Your task to perform on an android device: open app "Move to iOS" (install if not already installed) and go to login screen Image 0: 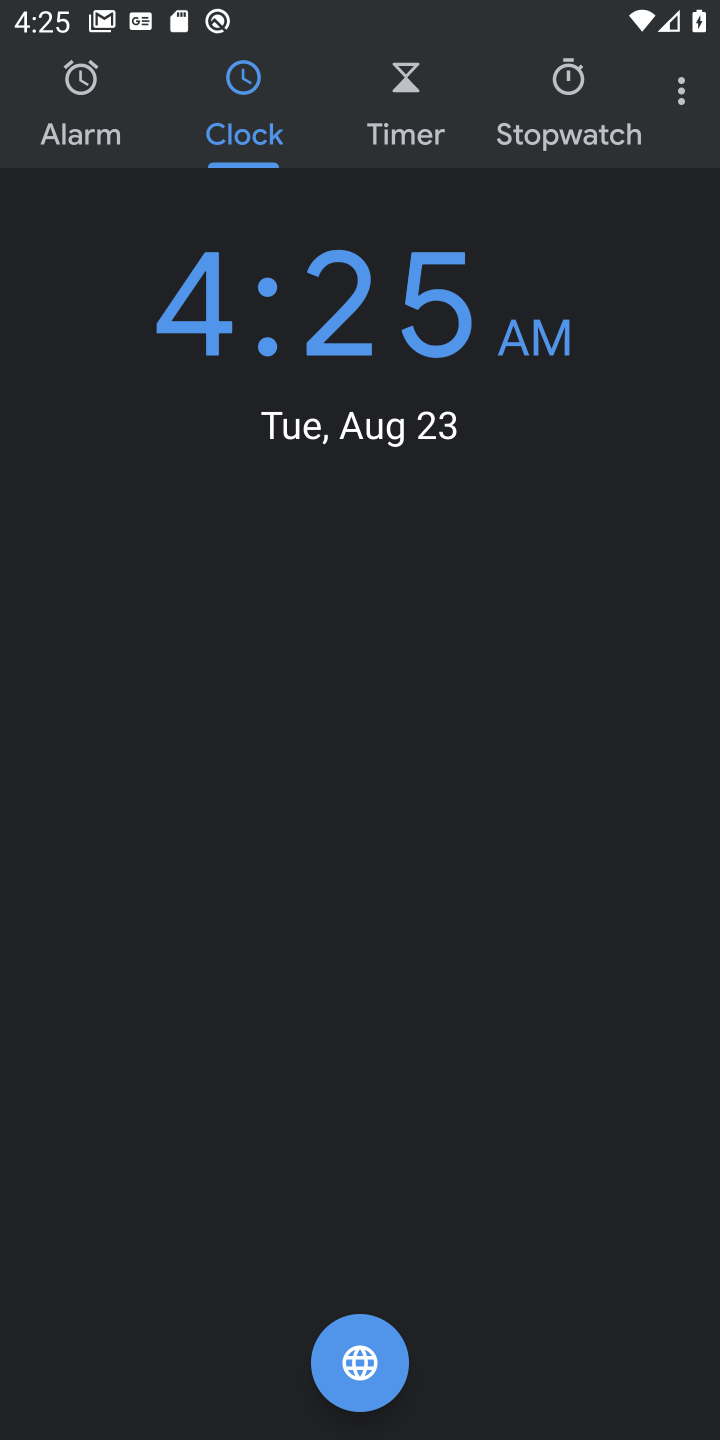
Step 0: press home button
Your task to perform on an android device: open app "Move to iOS" (install if not already installed) and go to login screen Image 1: 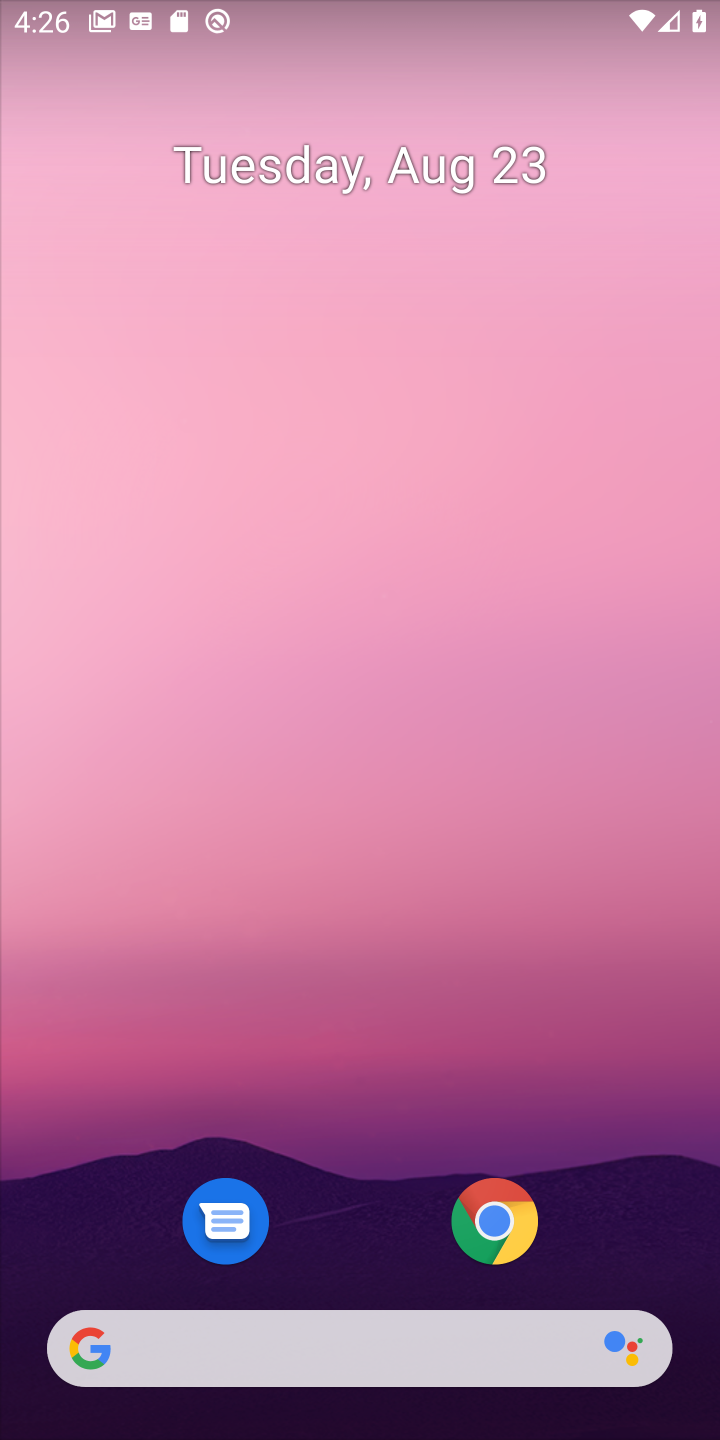
Step 1: drag from (308, 1201) to (312, 34)
Your task to perform on an android device: open app "Move to iOS" (install if not already installed) and go to login screen Image 2: 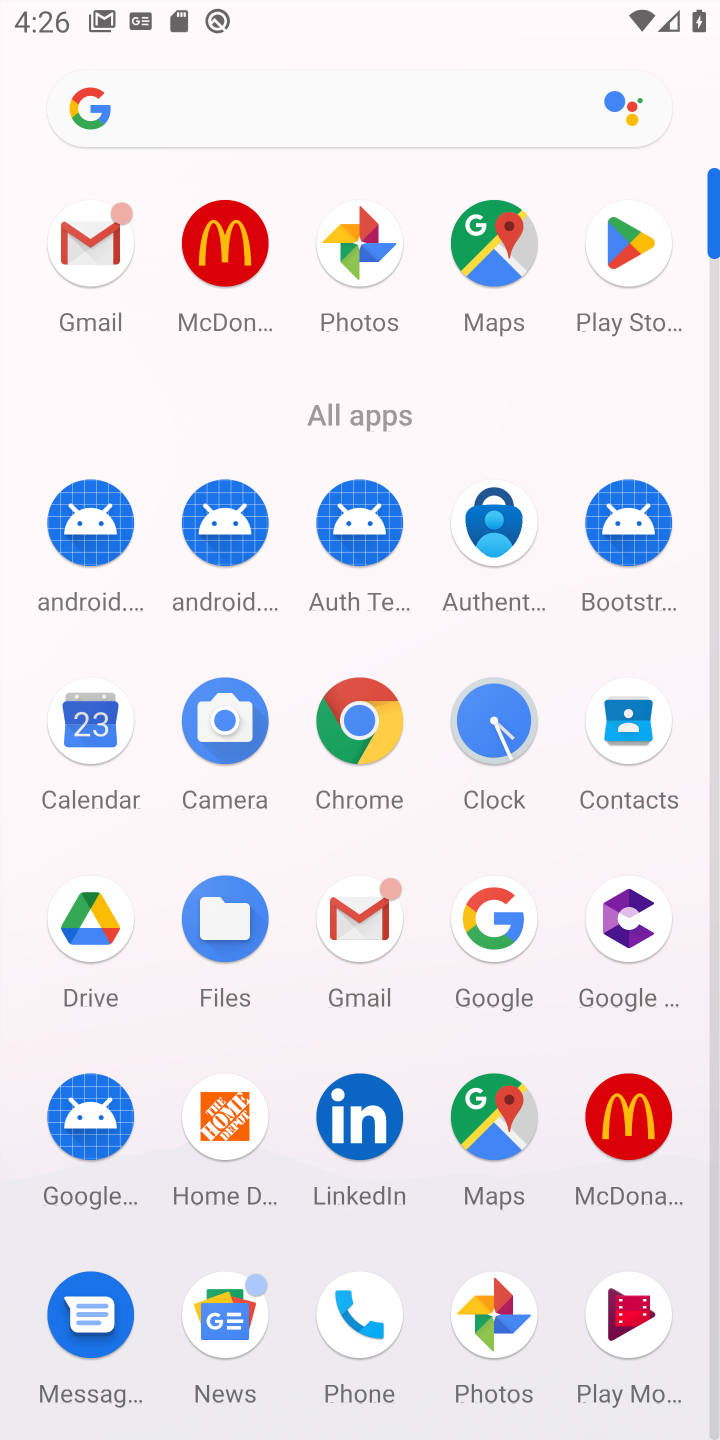
Step 2: click (619, 238)
Your task to perform on an android device: open app "Move to iOS" (install if not already installed) and go to login screen Image 3: 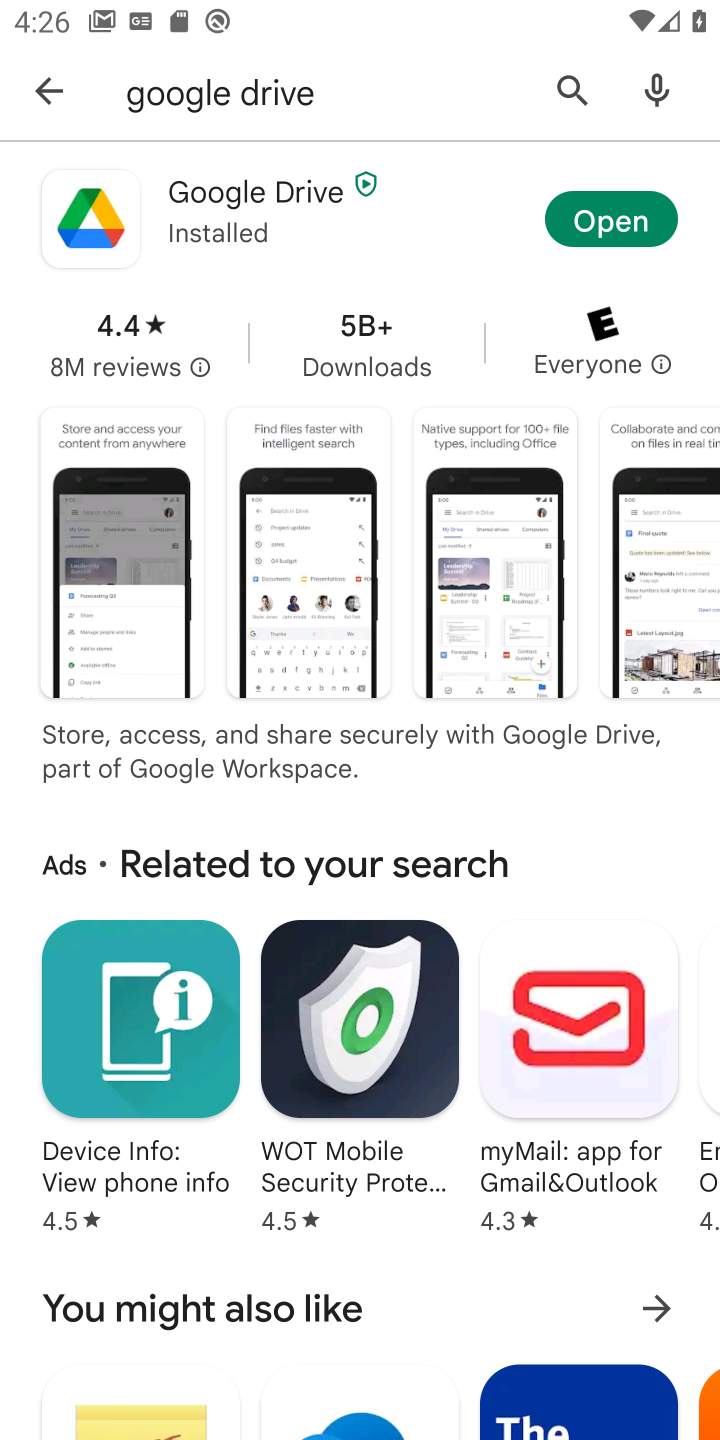
Step 3: click (33, 90)
Your task to perform on an android device: open app "Move to iOS" (install if not already installed) and go to login screen Image 4: 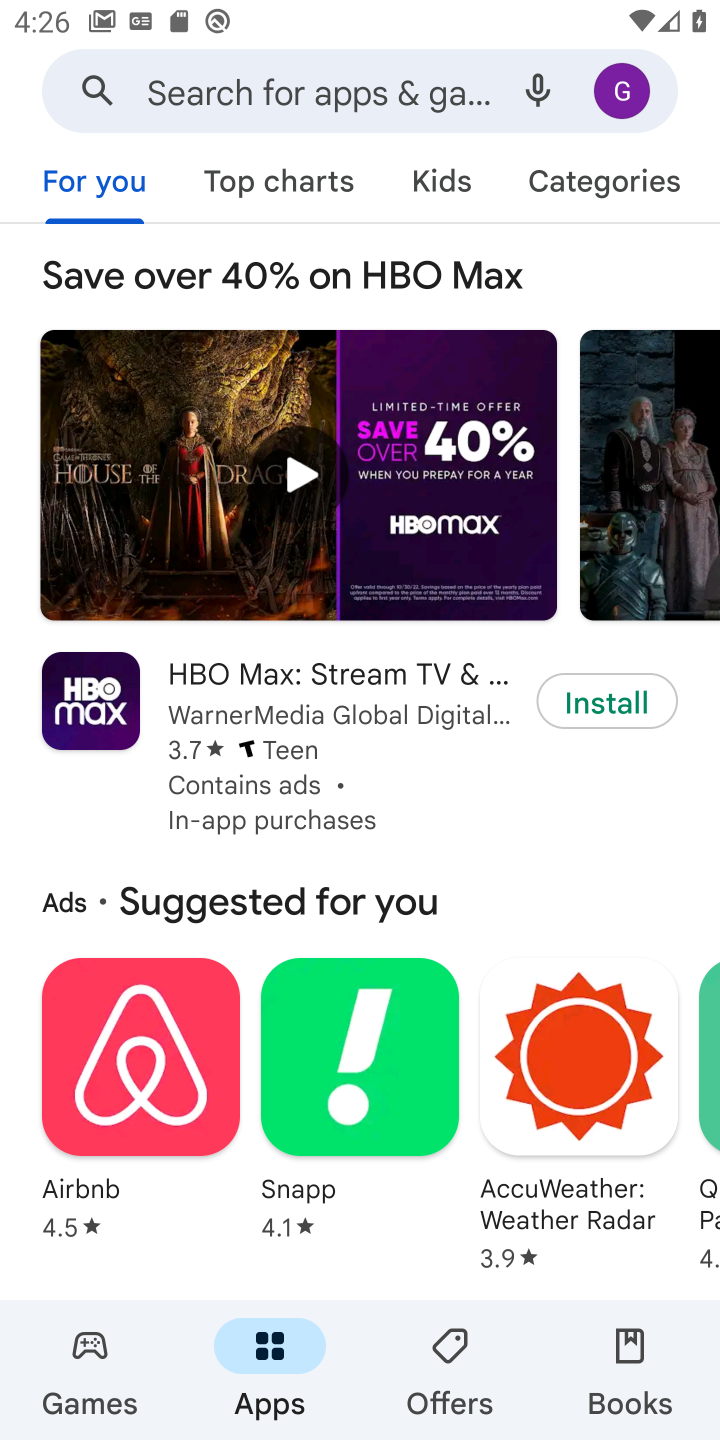
Step 4: click (193, 97)
Your task to perform on an android device: open app "Move to iOS" (install if not already installed) and go to login screen Image 5: 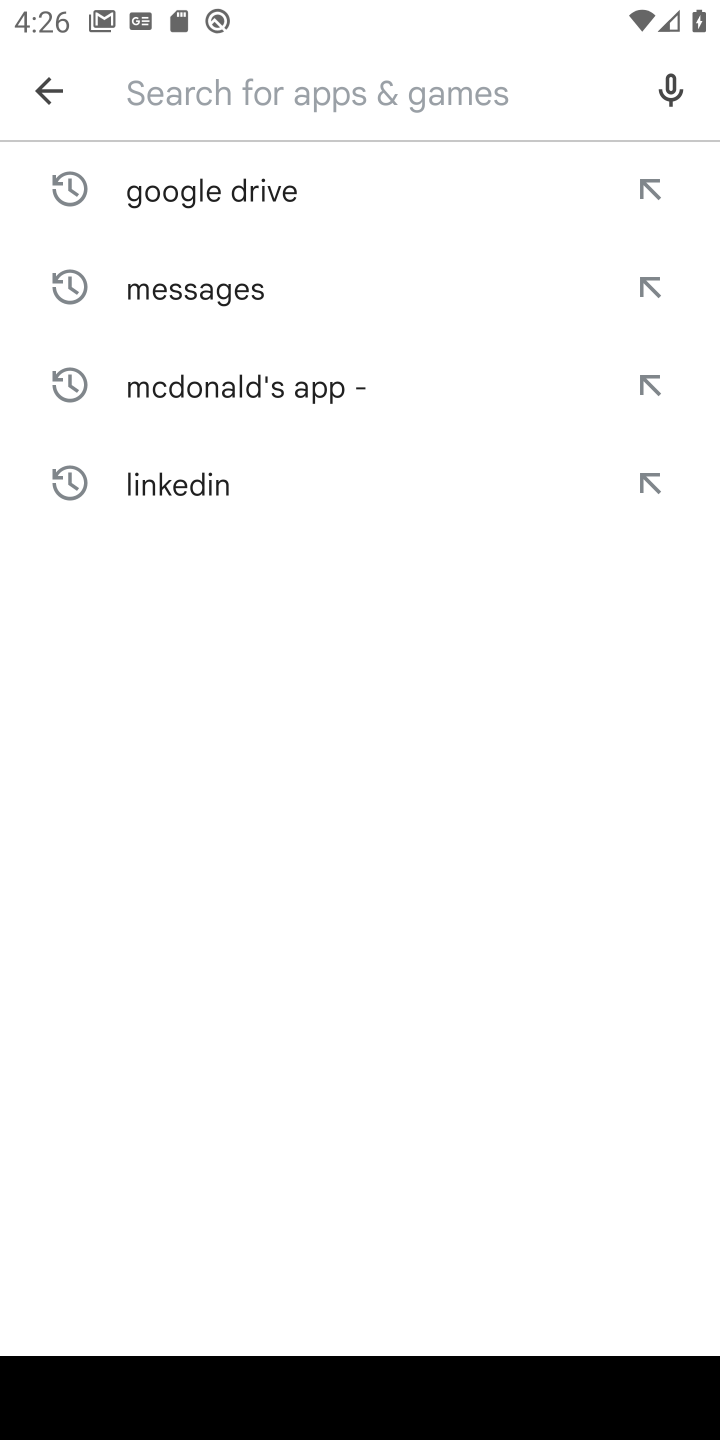
Step 5: type "Move to iOS"
Your task to perform on an android device: open app "Move to iOS" (install if not already installed) and go to login screen Image 6: 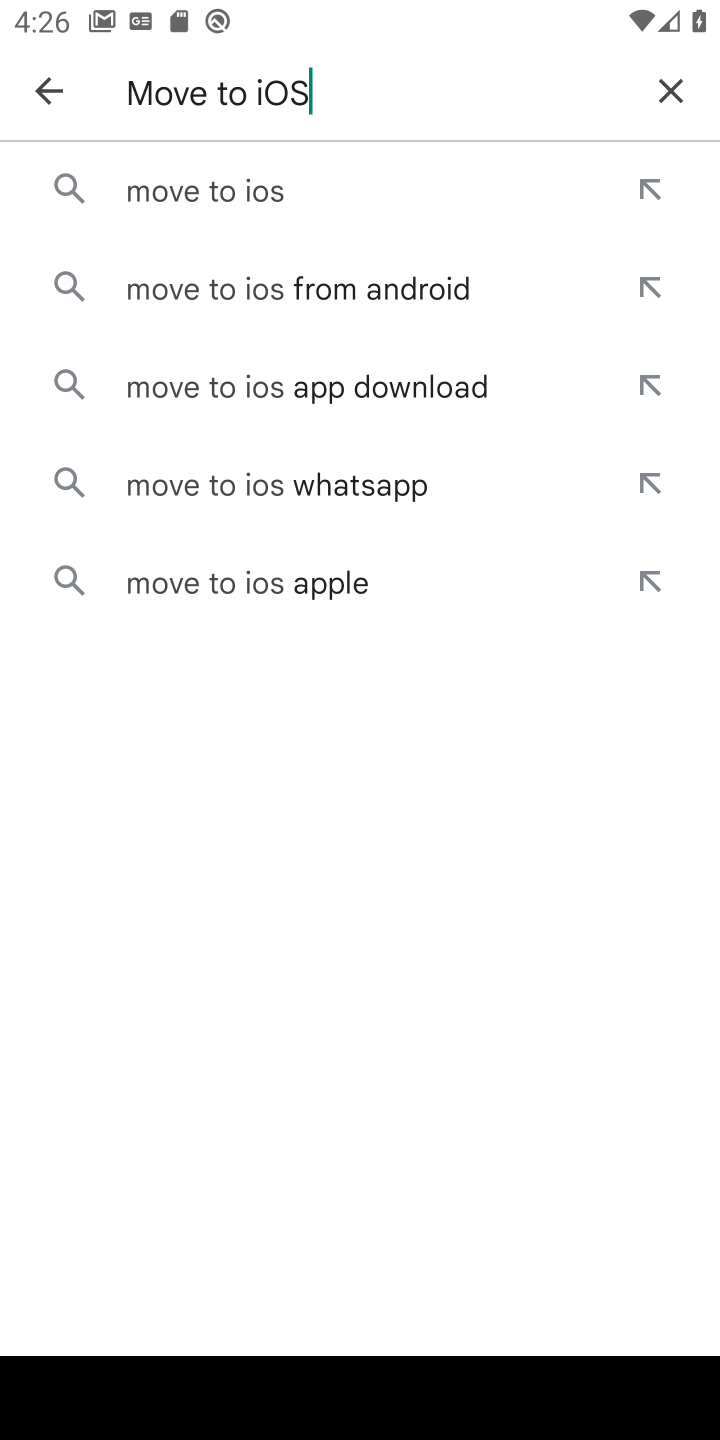
Step 6: click (237, 177)
Your task to perform on an android device: open app "Move to iOS" (install if not already installed) and go to login screen Image 7: 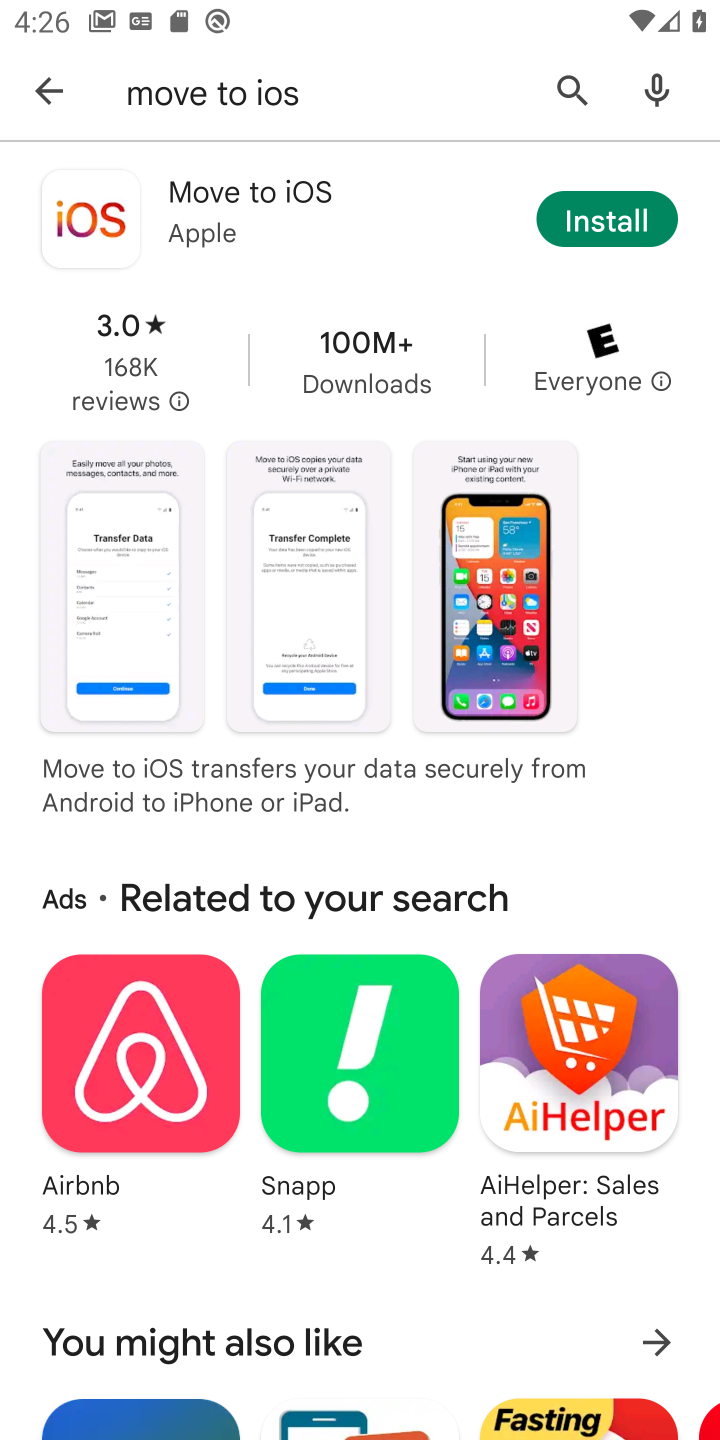
Step 7: click (628, 209)
Your task to perform on an android device: open app "Move to iOS" (install if not already installed) and go to login screen Image 8: 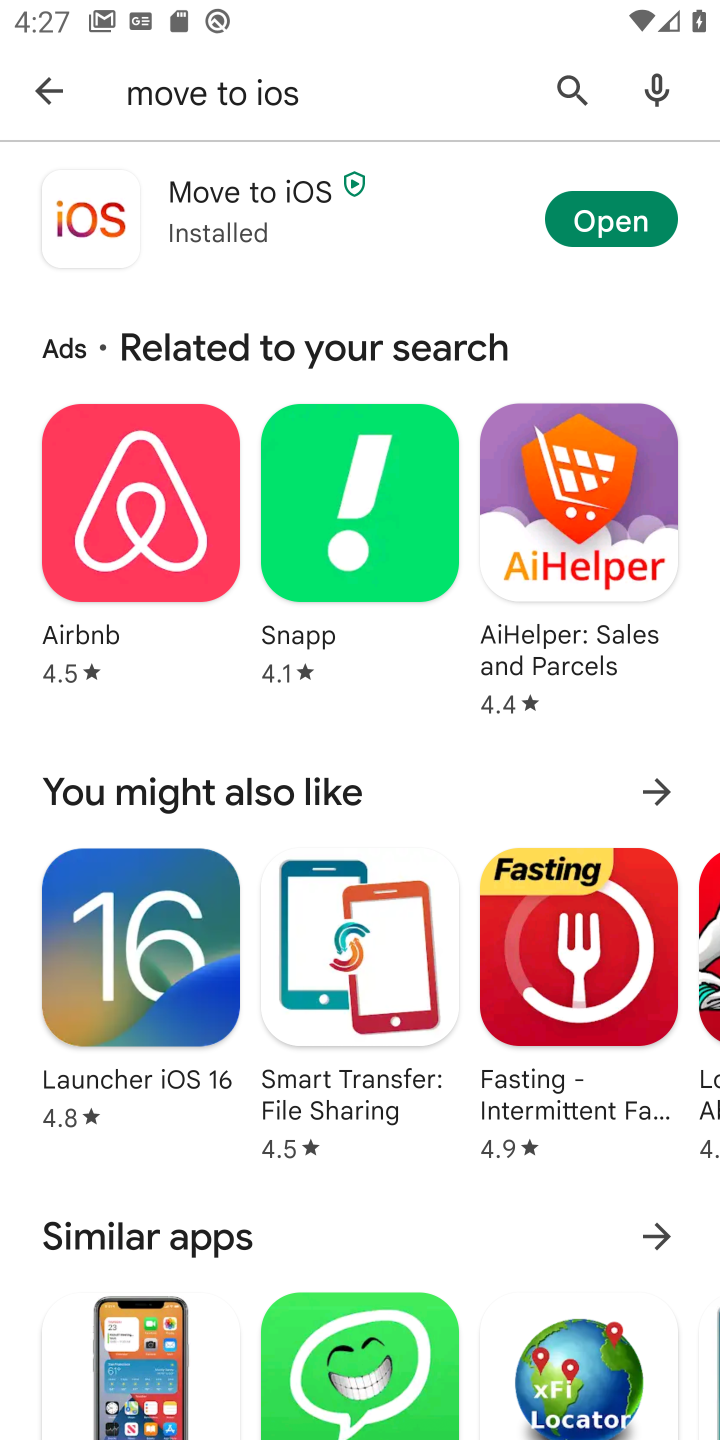
Step 8: click (622, 223)
Your task to perform on an android device: open app "Move to iOS" (install if not already installed) and go to login screen Image 9: 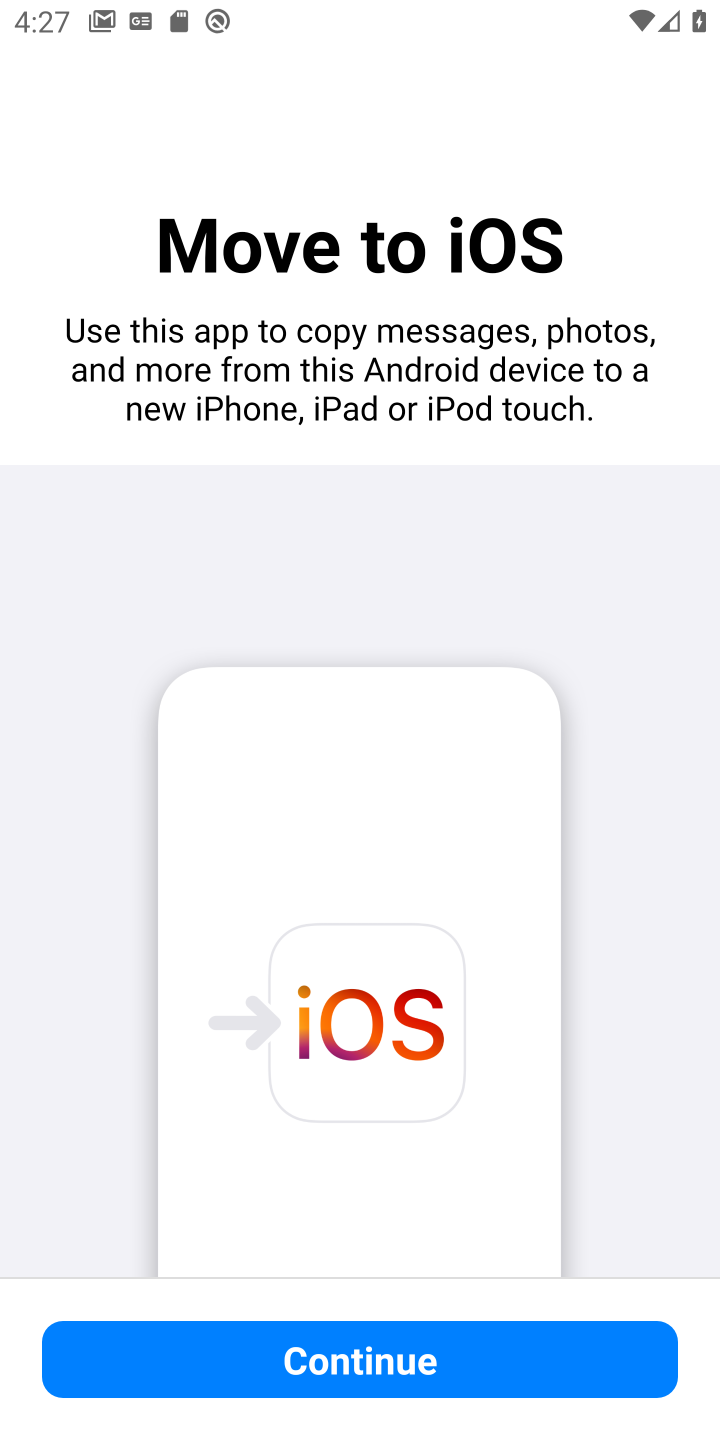
Step 9: task complete